Your task to perform on an android device: set the stopwatch Image 0: 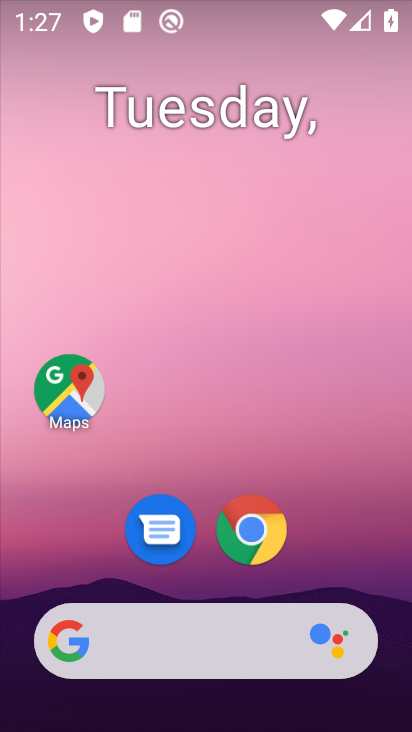
Step 0: drag from (397, 628) to (305, 72)
Your task to perform on an android device: set the stopwatch Image 1: 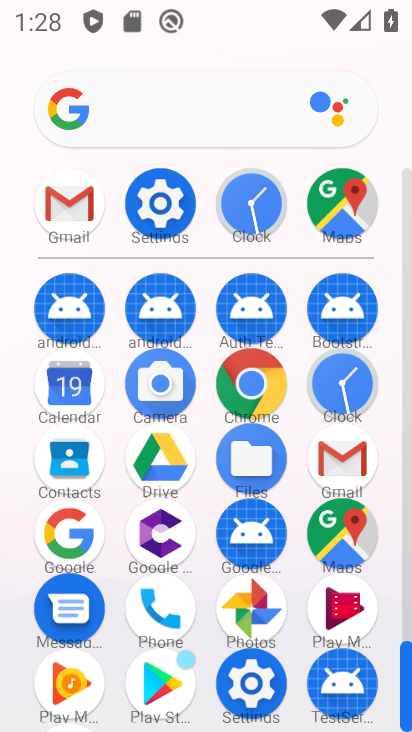
Step 1: click (245, 222)
Your task to perform on an android device: set the stopwatch Image 2: 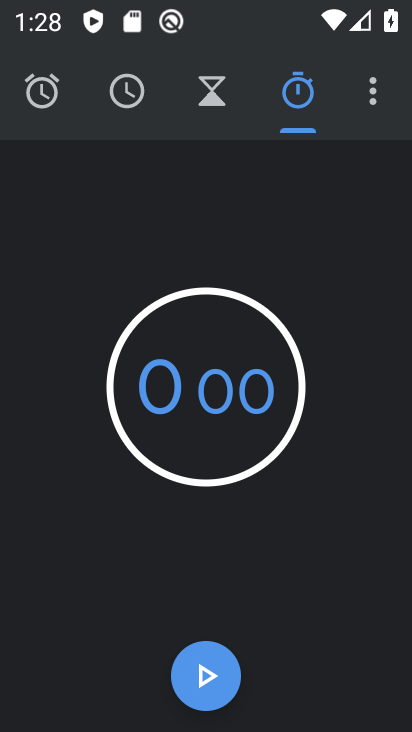
Step 2: task complete